Your task to perform on an android device: Search for seafood restaurants on Google Maps Image 0: 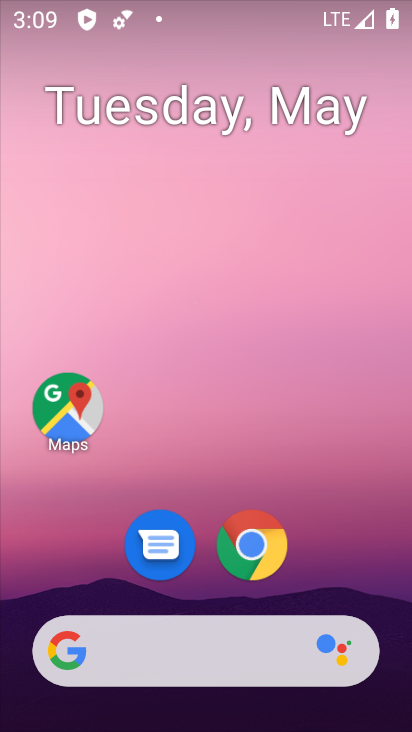
Step 0: click (69, 435)
Your task to perform on an android device: Search for seafood restaurants on Google Maps Image 1: 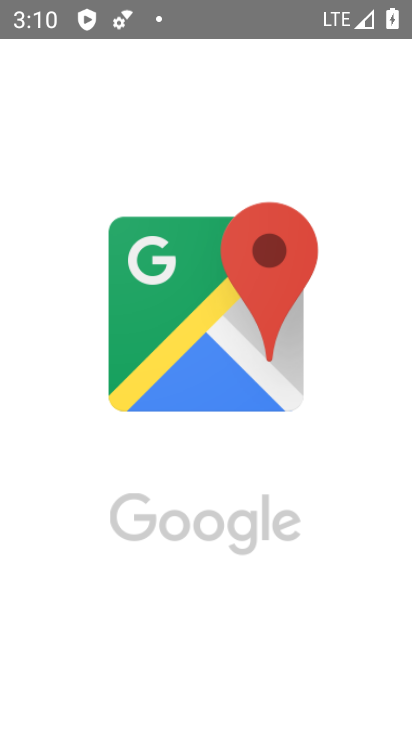
Step 1: task complete